Your task to perform on an android device: Check the news Image 0: 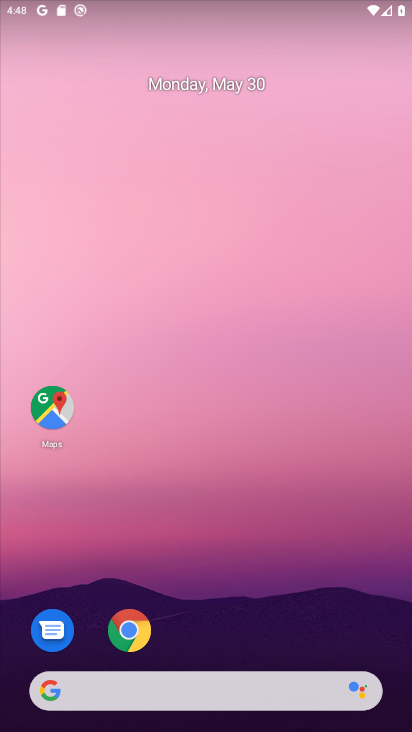
Step 0: press home button
Your task to perform on an android device: Check the news Image 1: 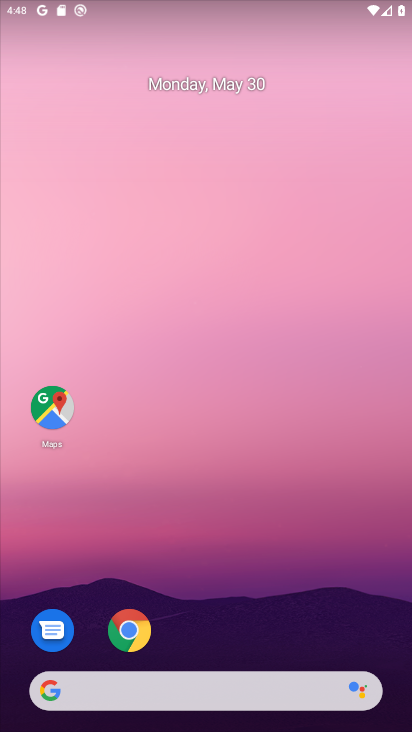
Step 1: click (44, 688)
Your task to perform on an android device: Check the news Image 2: 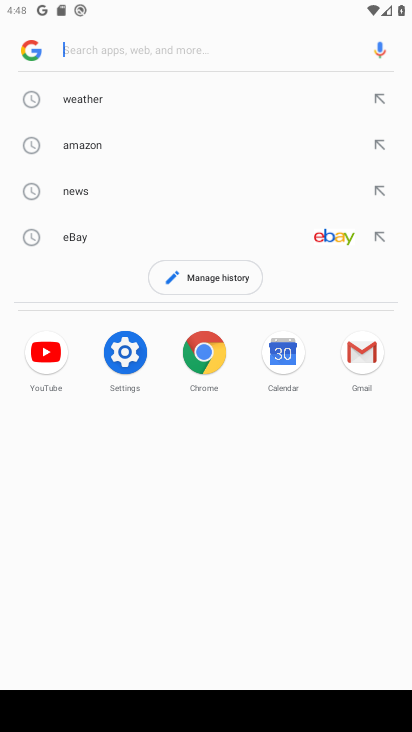
Step 2: click (83, 187)
Your task to perform on an android device: Check the news Image 3: 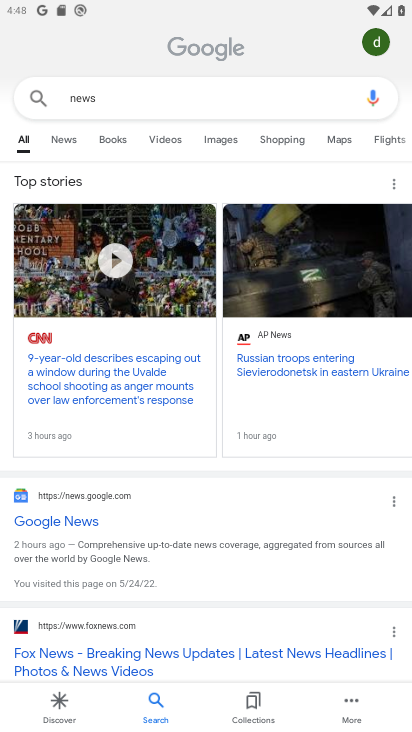
Step 3: task complete